Your task to perform on an android device: turn off airplane mode Image 0: 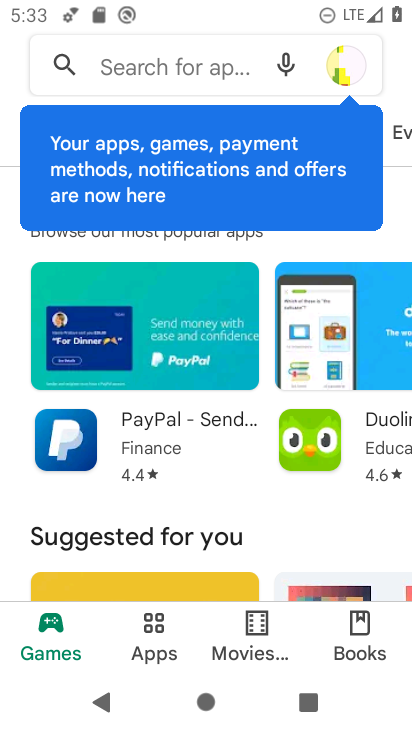
Step 0: press home button
Your task to perform on an android device: turn off airplane mode Image 1: 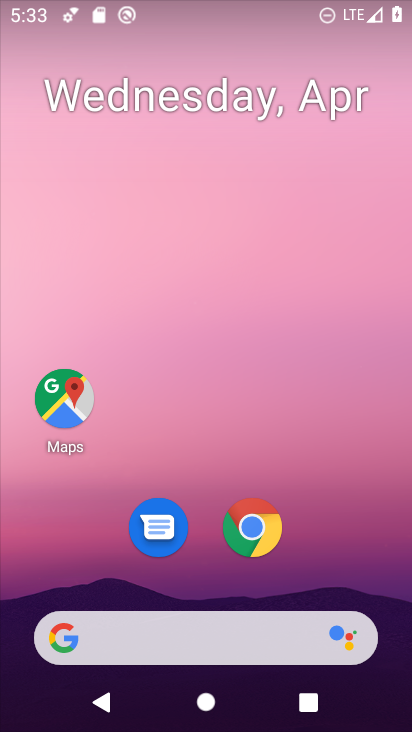
Step 1: drag from (373, 583) to (348, 10)
Your task to perform on an android device: turn off airplane mode Image 2: 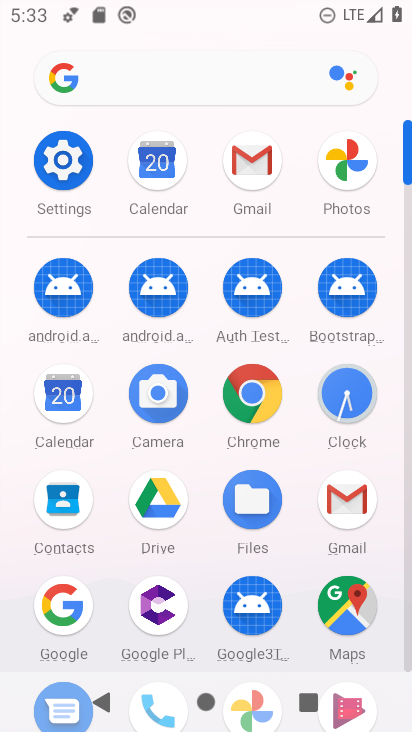
Step 2: click (67, 160)
Your task to perform on an android device: turn off airplane mode Image 3: 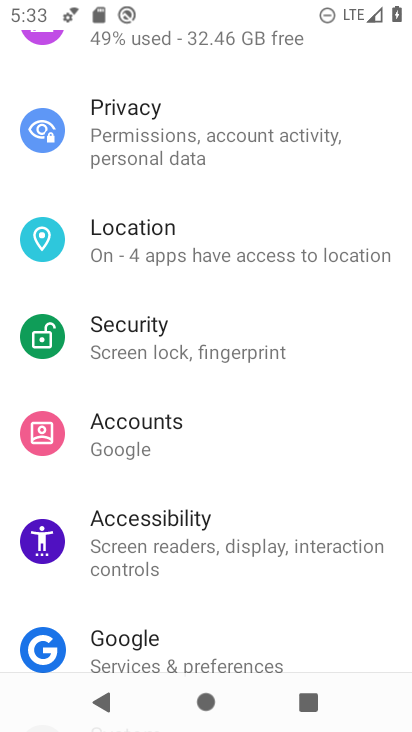
Step 3: drag from (271, 146) to (285, 491)
Your task to perform on an android device: turn off airplane mode Image 4: 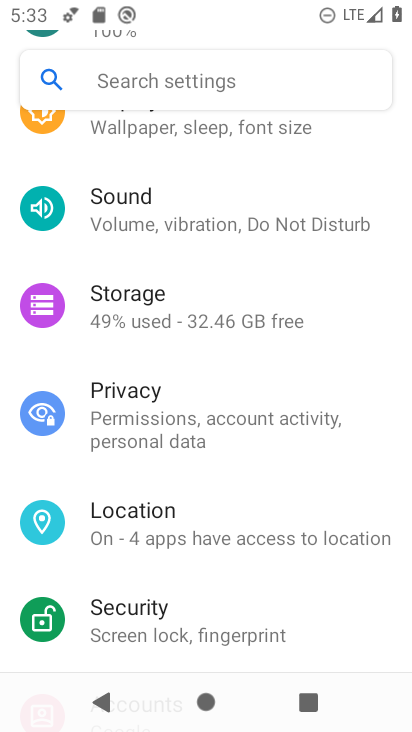
Step 4: drag from (272, 216) to (278, 537)
Your task to perform on an android device: turn off airplane mode Image 5: 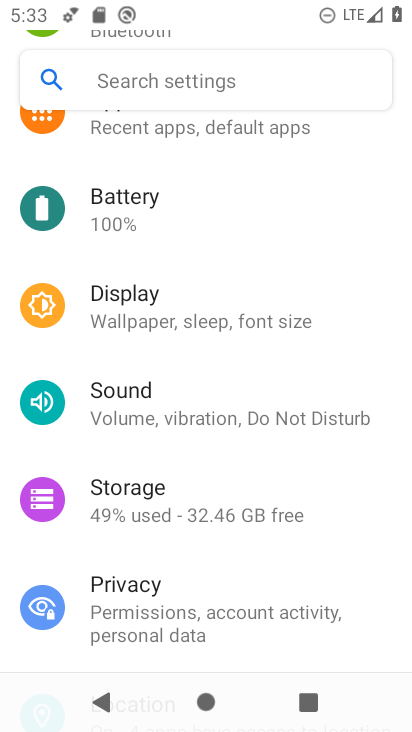
Step 5: drag from (276, 220) to (286, 603)
Your task to perform on an android device: turn off airplane mode Image 6: 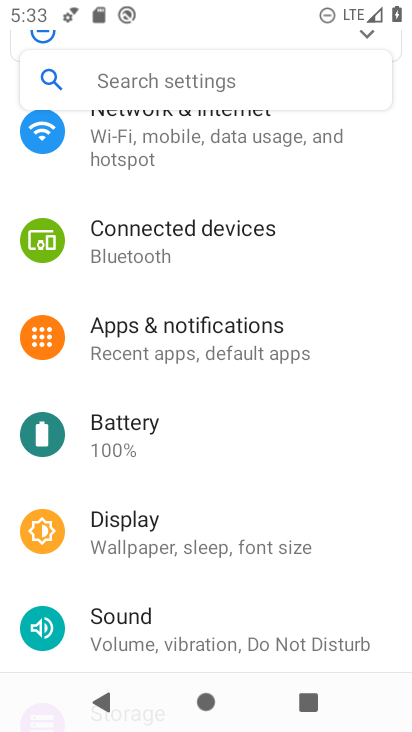
Step 6: drag from (282, 238) to (273, 537)
Your task to perform on an android device: turn off airplane mode Image 7: 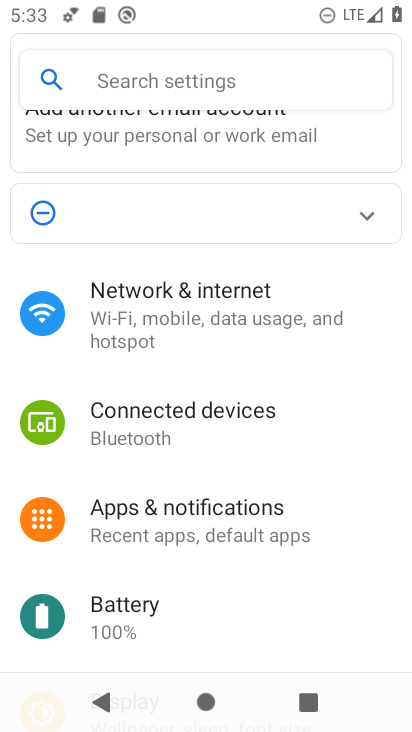
Step 7: click (188, 322)
Your task to perform on an android device: turn off airplane mode Image 8: 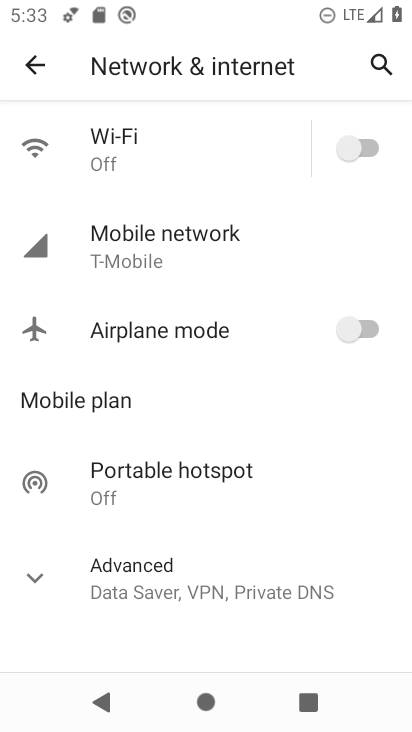
Step 8: task complete